Your task to perform on an android device: turn on priority inbox in the gmail app Image 0: 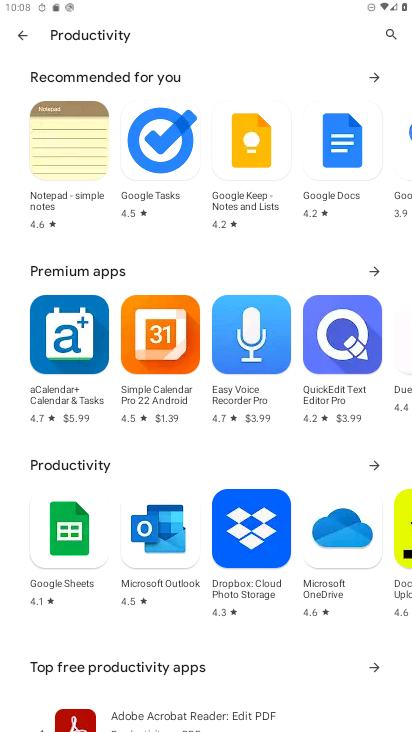
Step 0: press home button
Your task to perform on an android device: turn on priority inbox in the gmail app Image 1: 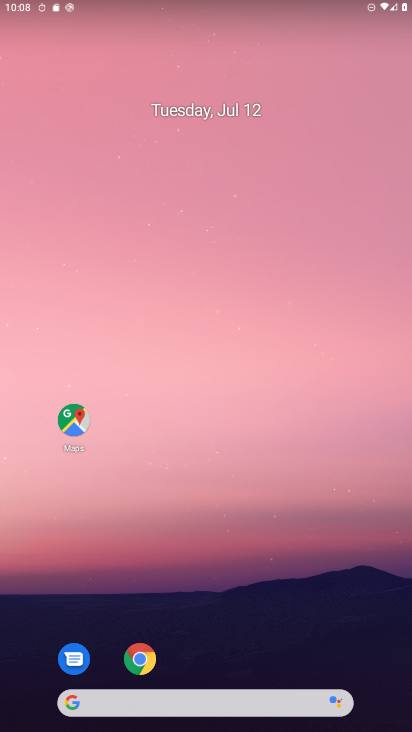
Step 1: drag from (220, 728) to (246, 146)
Your task to perform on an android device: turn on priority inbox in the gmail app Image 2: 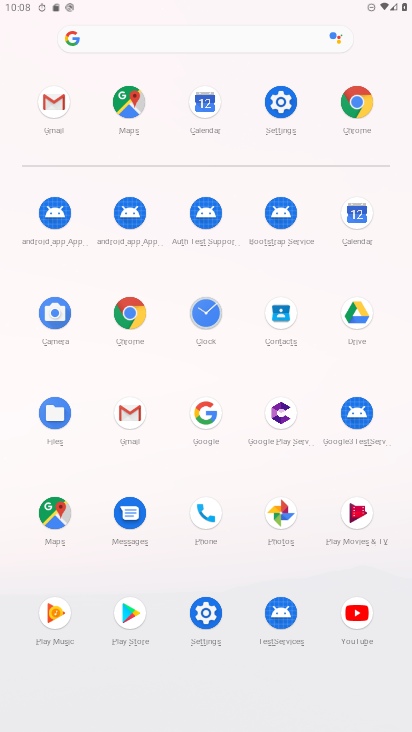
Step 2: click (127, 409)
Your task to perform on an android device: turn on priority inbox in the gmail app Image 3: 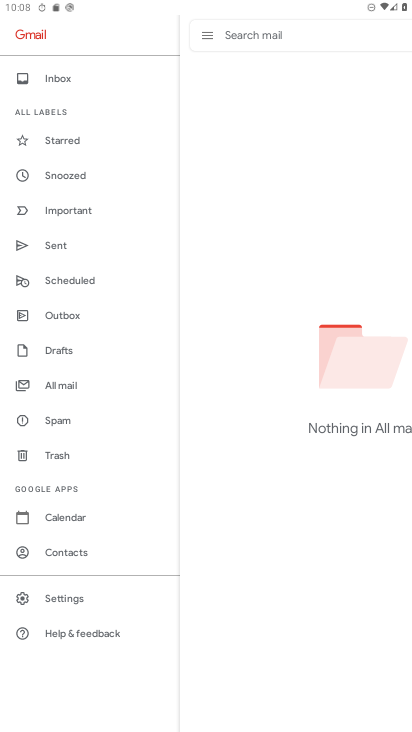
Step 3: click (71, 595)
Your task to perform on an android device: turn on priority inbox in the gmail app Image 4: 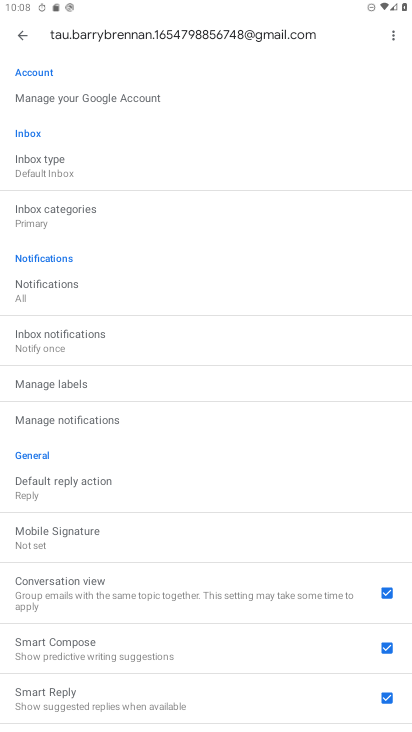
Step 4: click (50, 162)
Your task to perform on an android device: turn on priority inbox in the gmail app Image 5: 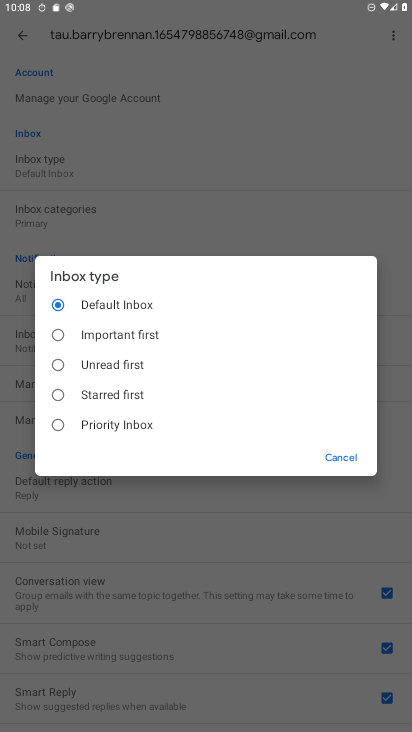
Step 5: click (56, 427)
Your task to perform on an android device: turn on priority inbox in the gmail app Image 6: 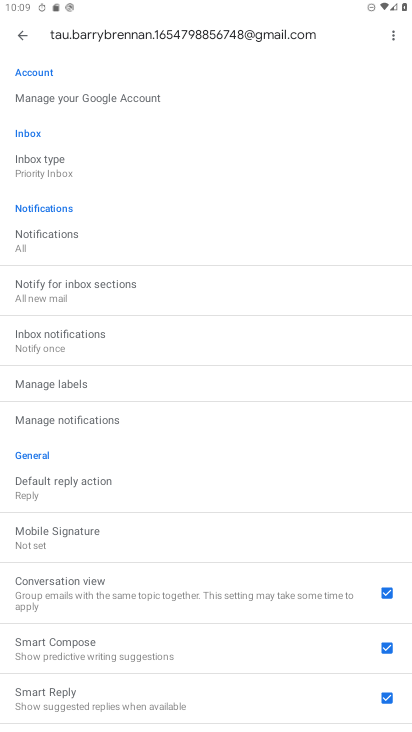
Step 6: task complete